Your task to perform on an android device: Open Google Chrome and click the shortcut for Amazon.com Image 0: 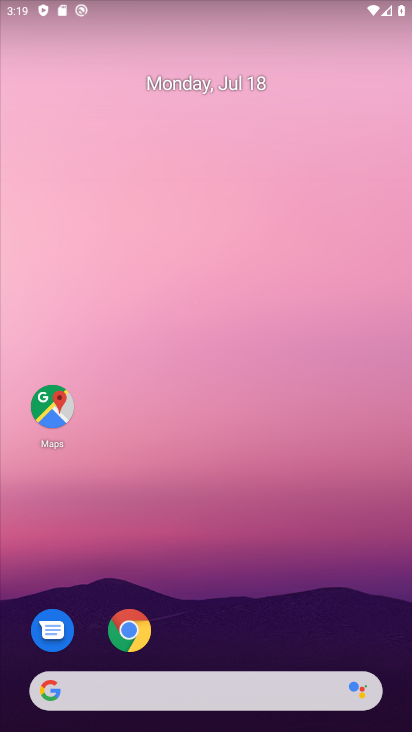
Step 0: click (124, 643)
Your task to perform on an android device: Open Google Chrome and click the shortcut for Amazon.com Image 1: 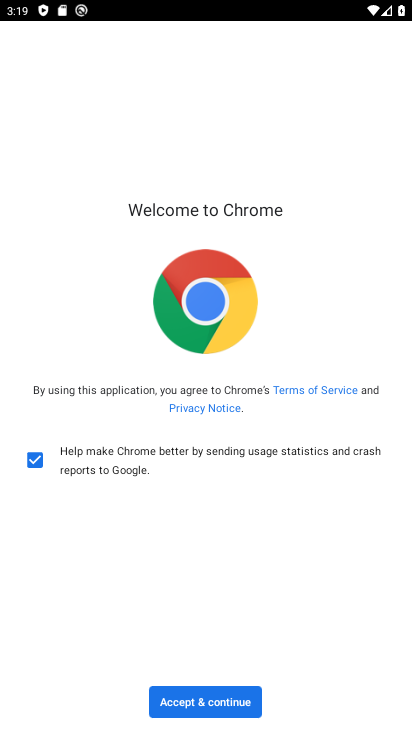
Step 1: click (232, 701)
Your task to perform on an android device: Open Google Chrome and click the shortcut for Amazon.com Image 2: 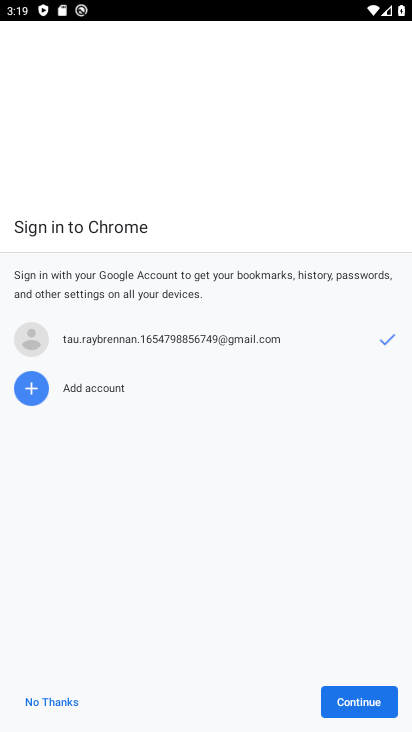
Step 2: click (374, 699)
Your task to perform on an android device: Open Google Chrome and click the shortcut for Amazon.com Image 3: 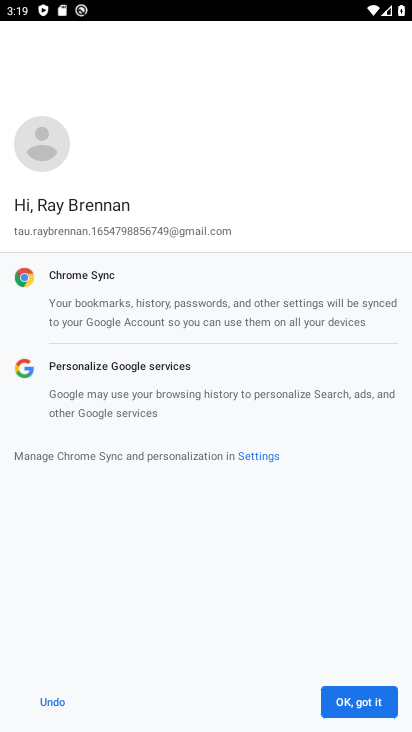
Step 3: click (363, 697)
Your task to perform on an android device: Open Google Chrome and click the shortcut for Amazon.com Image 4: 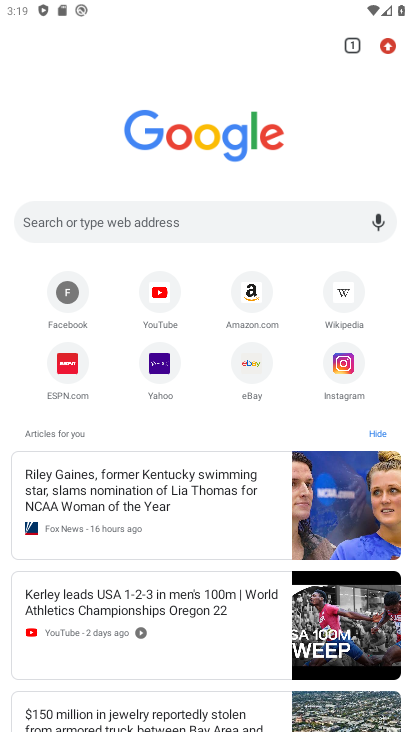
Step 4: click (269, 300)
Your task to perform on an android device: Open Google Chrome and click the shortcut for Amazon.com Image 5: 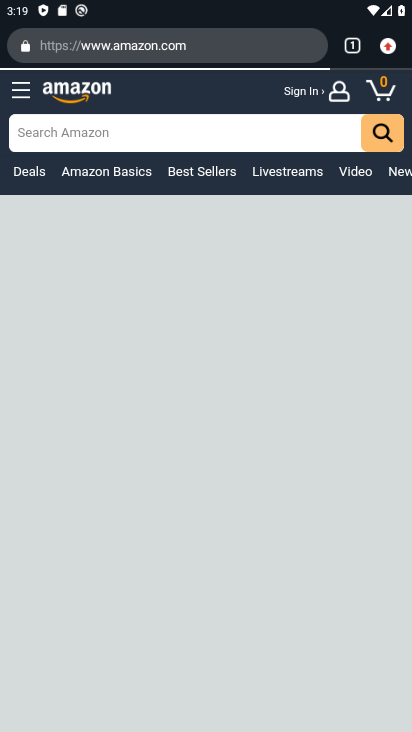
Step 5: task complete